Your task to perform on an android device: Set the phone to "Do not disturb". Image 0: 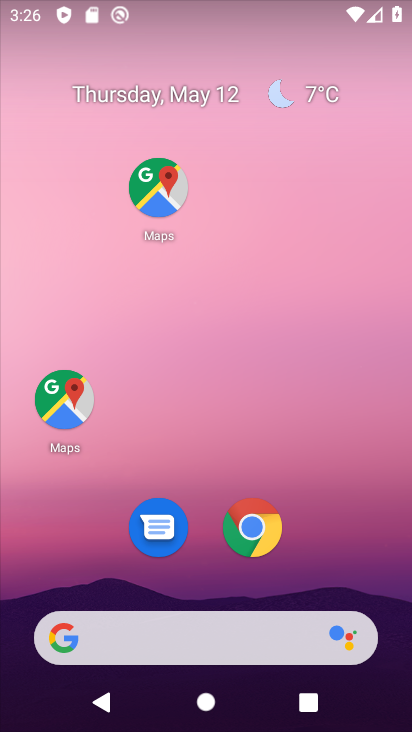
Step 0: drag from (211, 2) to (200, 716)
Your task to perform on an android device: Set the phone to "Do not disturb". Image 1: 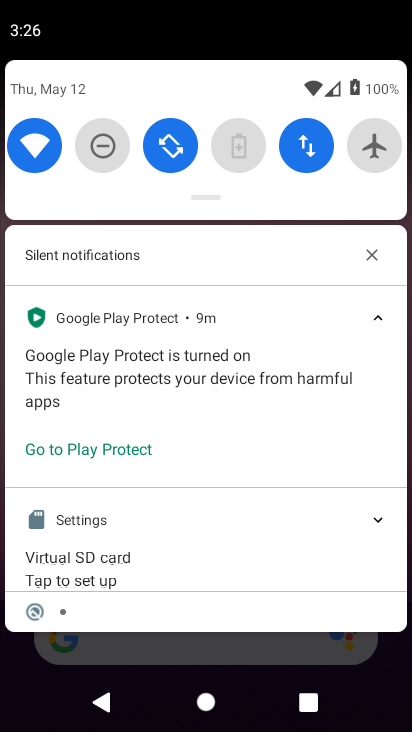
Step 1: click (103, 151)
Your task to perform on an android device: Set the phone to "Do not disturb". Image 2: 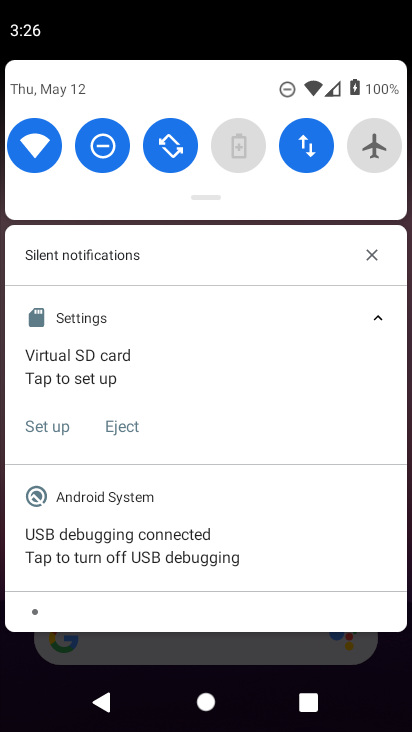
Step 2: task complete